Your task to perform on an android device: Turn on the flashlight Image 0: 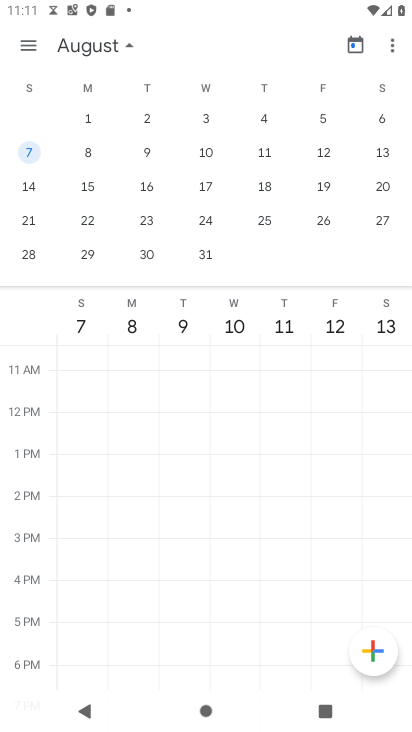
Step 0: press home button
Your task to perform on an android device: Turn on the flashlight Image 1: 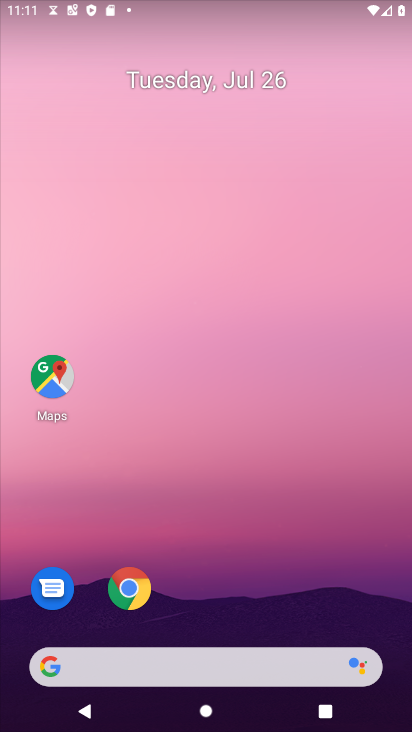
Step 1: drag from (193, 586) to (217, 153)
Your task to perform on an android device: Turn on the flashlight Image 2: 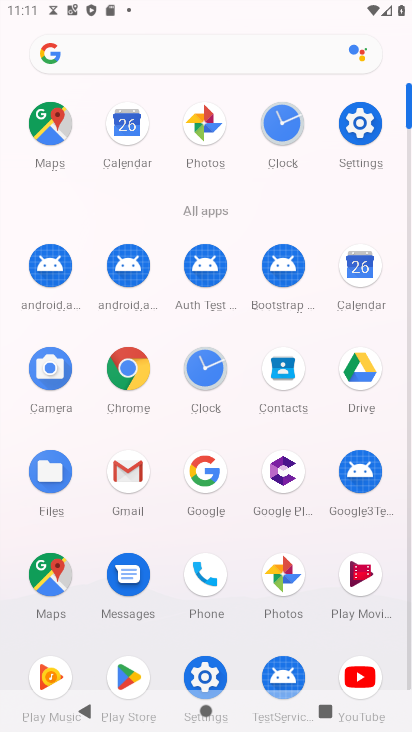
Step 2: click (356, 119)
Your task to perform on an android device: Turn on the flashlight Image 3: 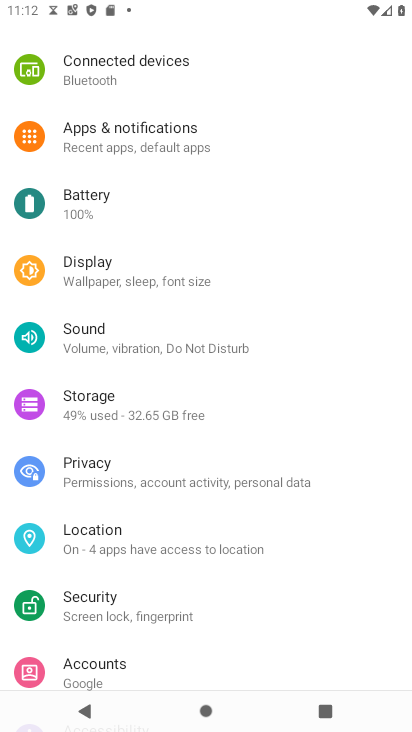
Step 3: task complete